Your task to perform on an android device: Open maps Image 0: 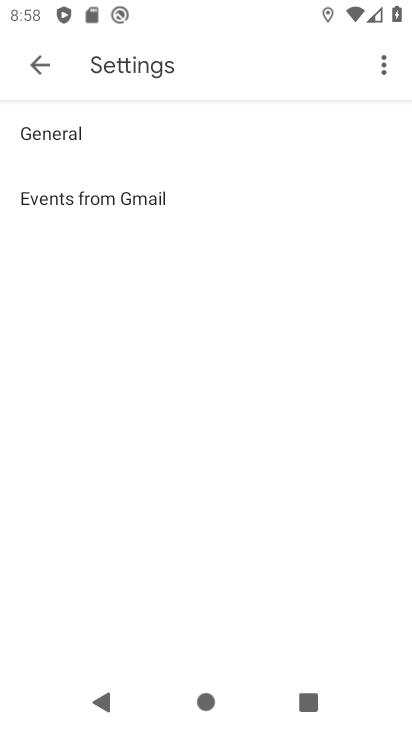
Step 0: press home button
Your task to perform on an android device: Open maps Image 1: 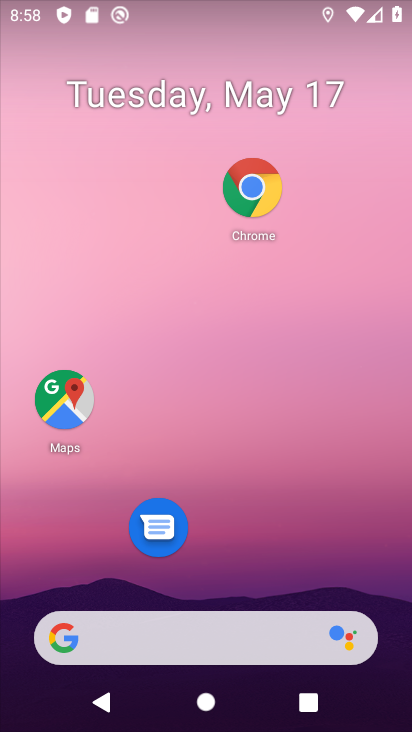
Step 1: drag from (285, 542) to (291, 132)
Your task to perform on an android device: Open maps Image 2: 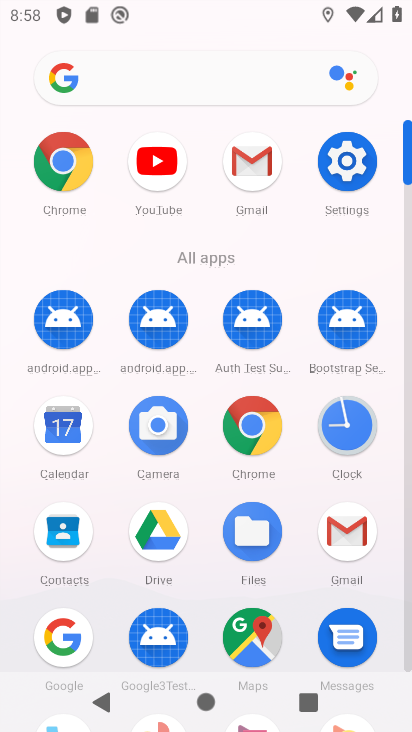
Step 2: click (243, 632)
Your task to perform on an android device: Open maps Image 3: 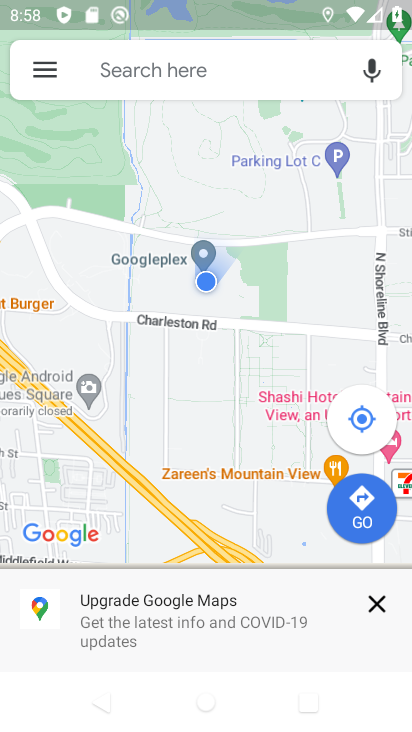
Step 3: click (35, 64)
Your task to perform on an android device: Open maps Image 4: 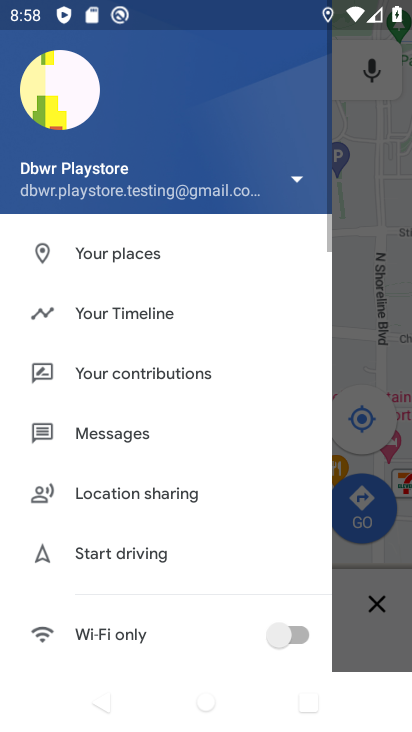
Step 4: task complete